Your task to perform on an android device: Do I have any events today? Image 0: 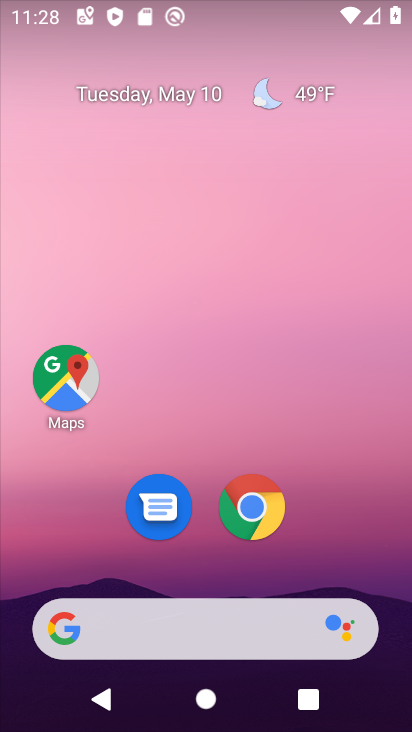
Step 0: drag from (215, 554) to (206, 80)
Your task to perform on an android device: Do I have any events today? Image 1: 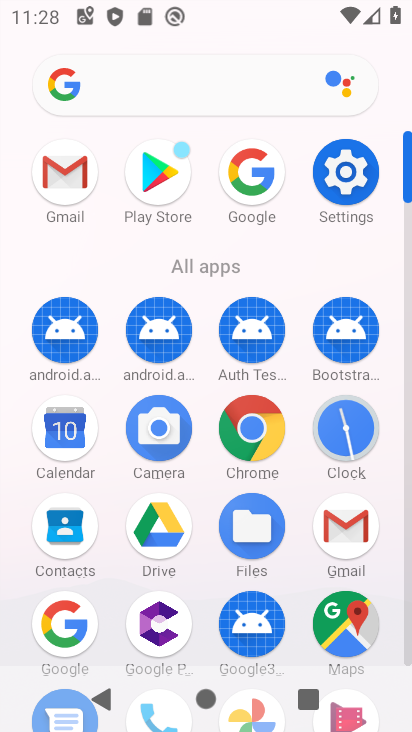
Step 1: click (64, 437)
Your task to perform on an android device: Do I have any events today? Image 2: 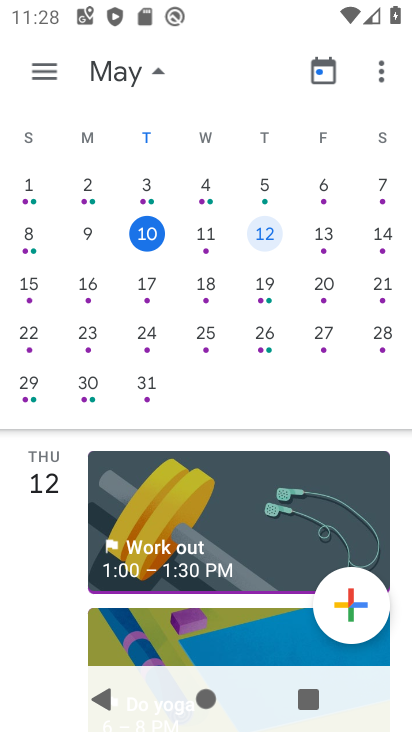
Step 2: click (144, 232)
Your task to perform on an android device: Do I have any events today? Image 3: 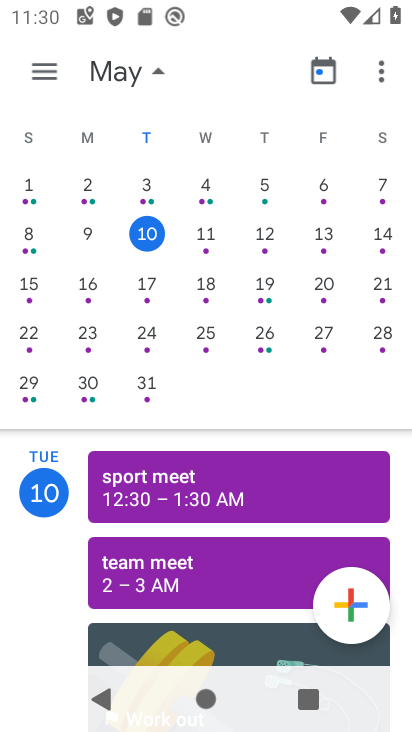
Step 3: task complete